Your task to perform on an android device: Open CNN.com Image 0: 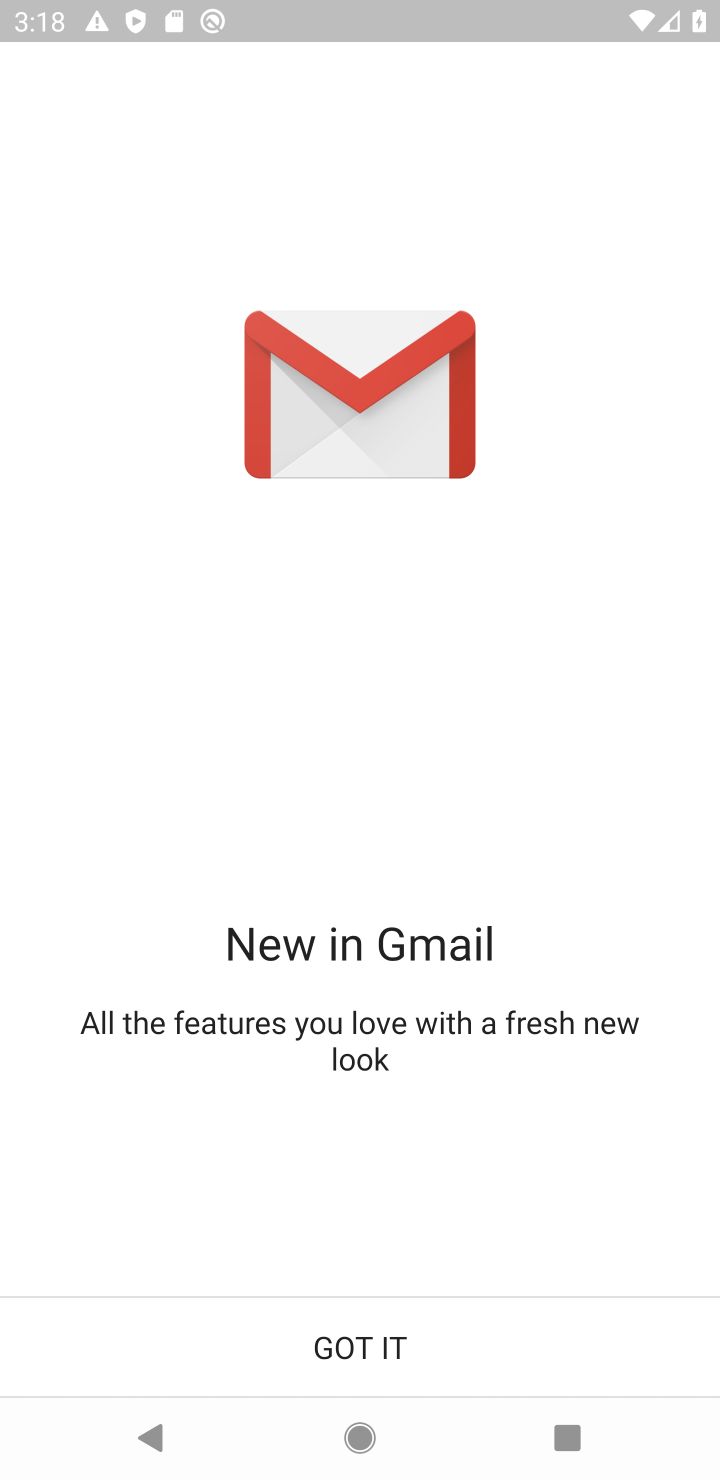
Step 0: click (356, 1327)
Your task to perform on an android device: Open CNN.com Image 1: 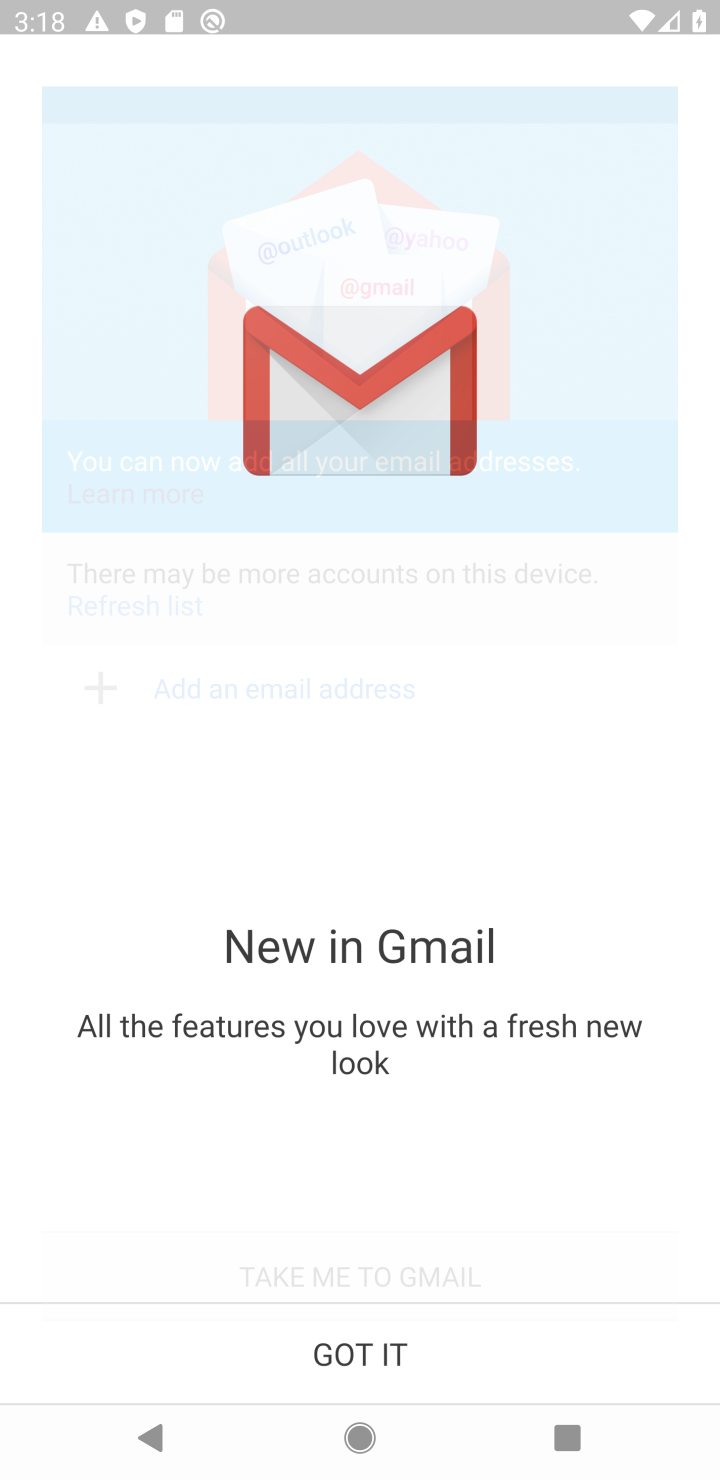
Step 1: press home button
Your task to perform on an android device: Open CNN.com Image 2: 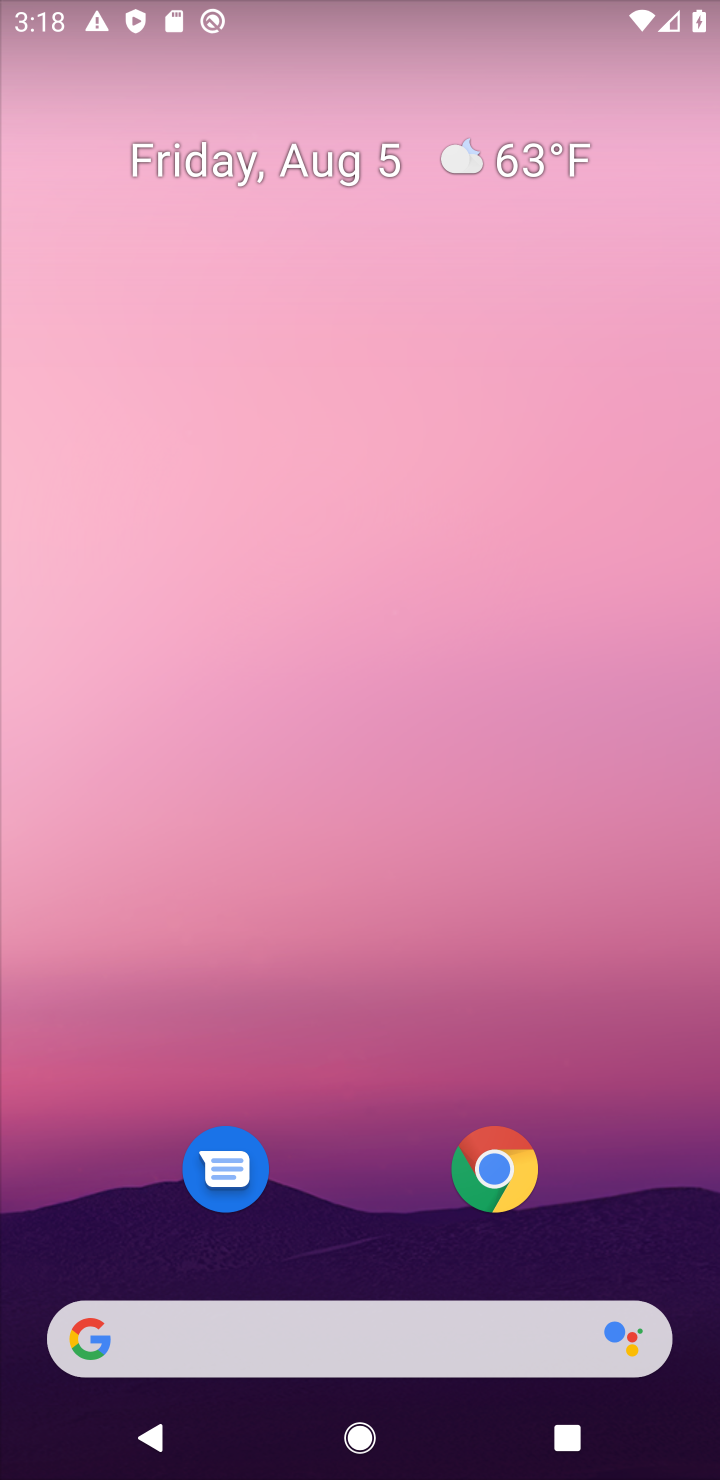
Step 2: click (498, 1163)
Your task to perform on an android device: Open CNN.com Image 3: 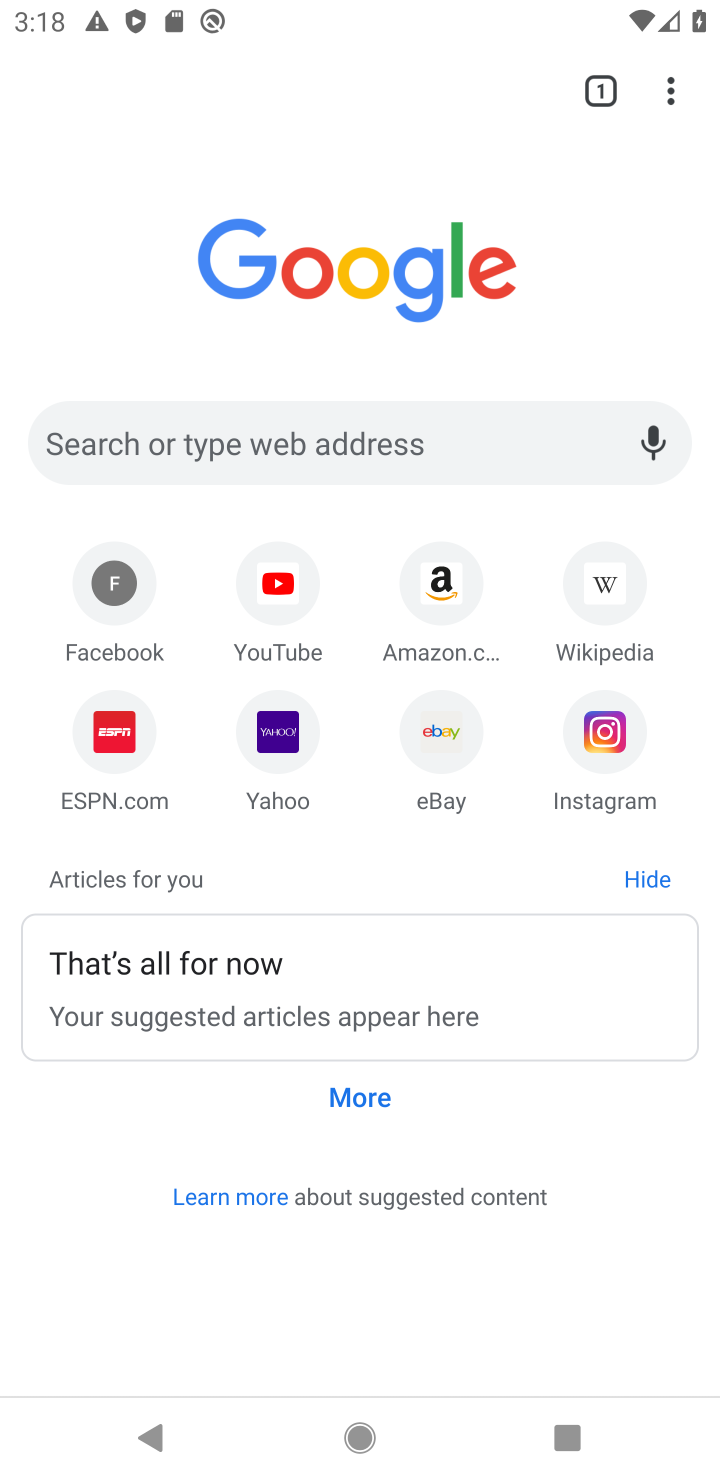
Step 3: click (428, 449)
Your task to perform on an android device: Open CNN.com Image 4: 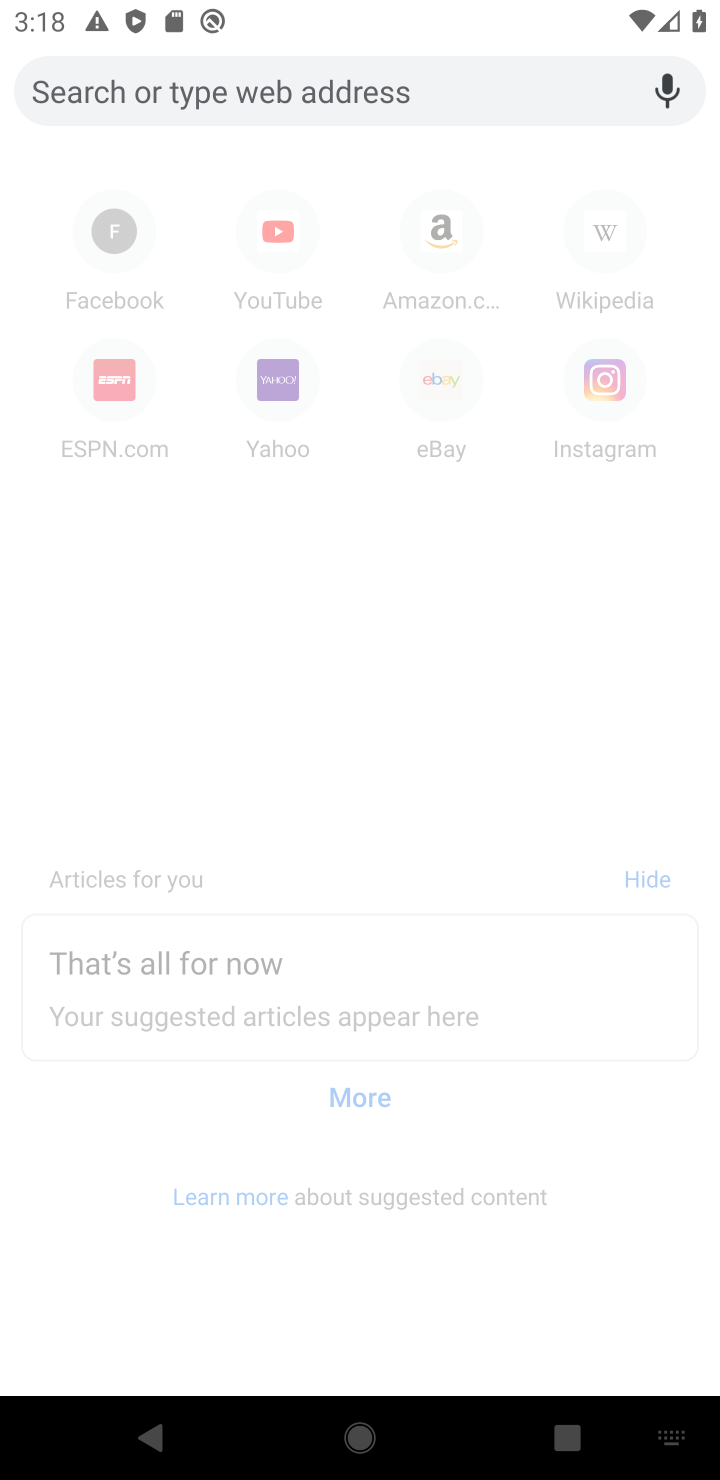
Step 4: type "CNN.com"
Your task to perform on an android device: Open CNN.com Image 5: 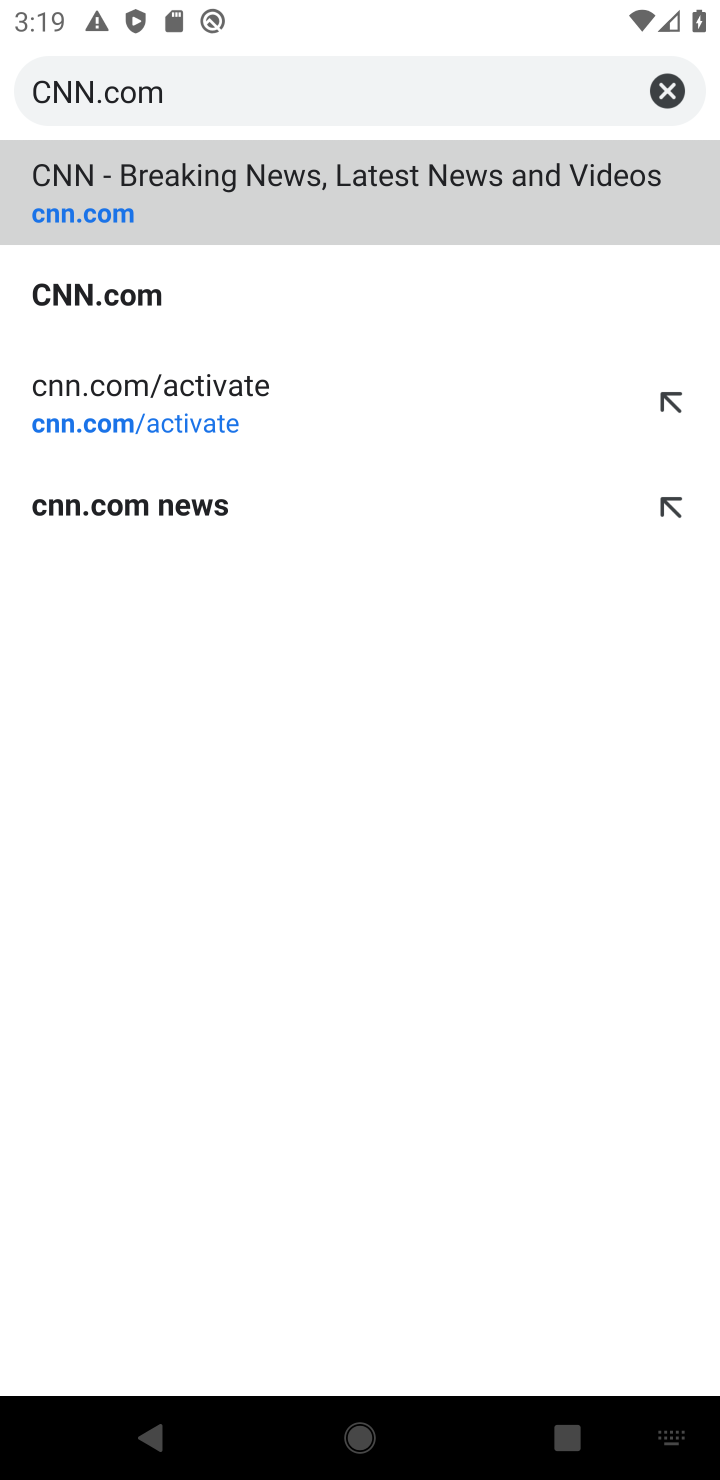
Step 5: click (97, 281)
Your task to perform on an android device: Open CNN.com Image 6: 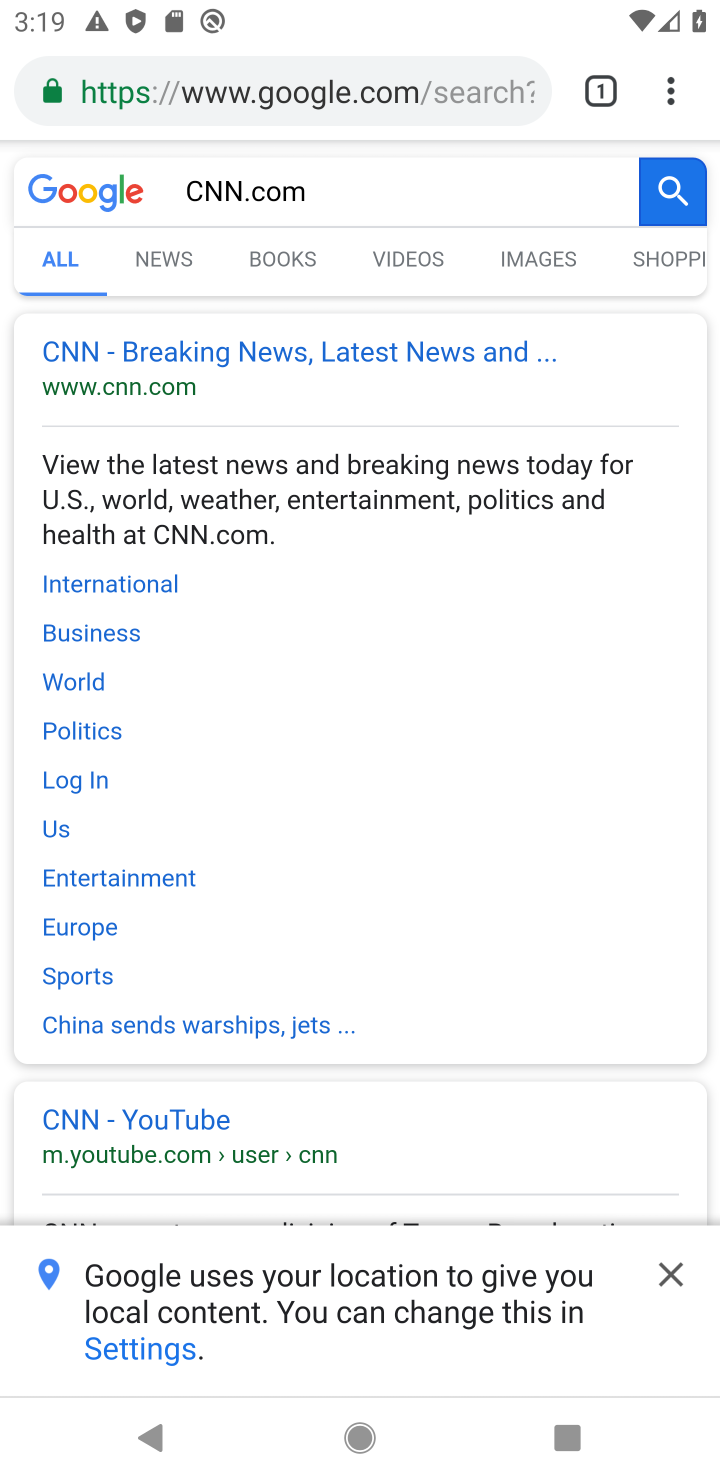
Step 6: task complete